Your task to perform on an android device: check the backup settings in the google photos Image 0: 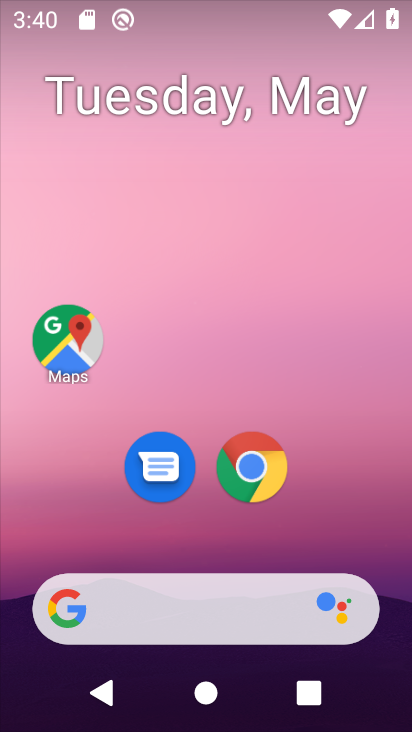
Step 0: drag from (320, 526) to (193, 3)
Your task to perform on an android device: check the backup settings in the google photos Image 1: 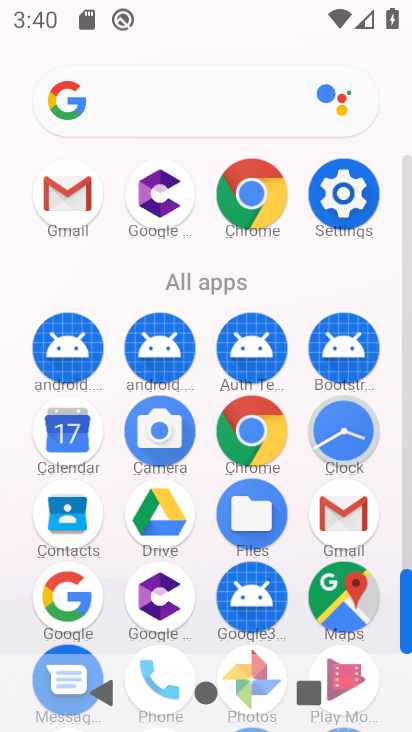
Step 1: click (58, 606)
Your task to perform on an android device: check the backup settings in the google photos Image 2: 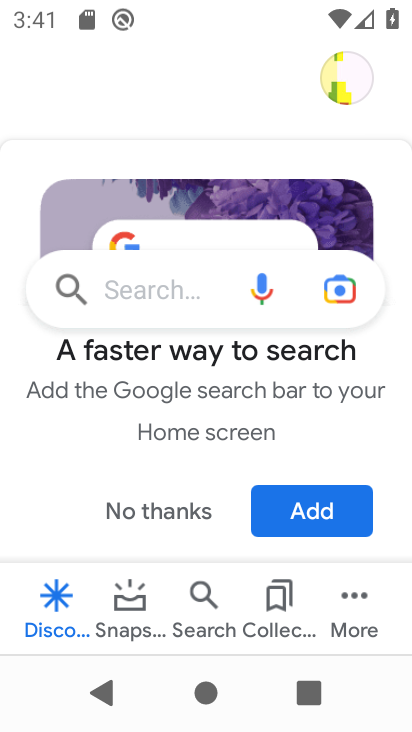
Step 2: press back button
Your task to perform on an android device: check the backup settings in the google photos Image 3: 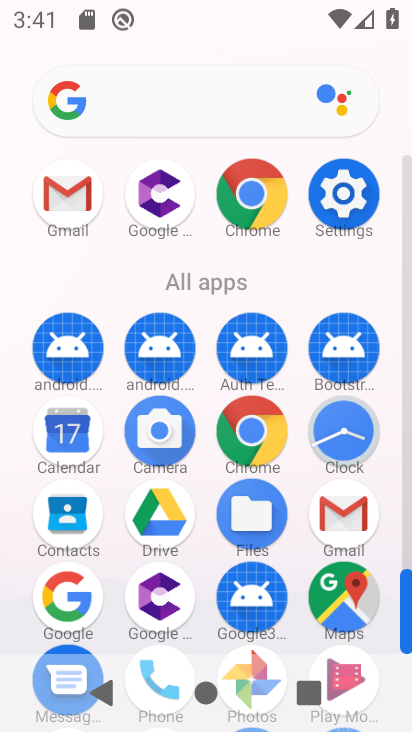
Step 3: drag from (272, 604) to (281, 373)
Your task to perform on an android device: check the backup settings in the google photos Image 4: 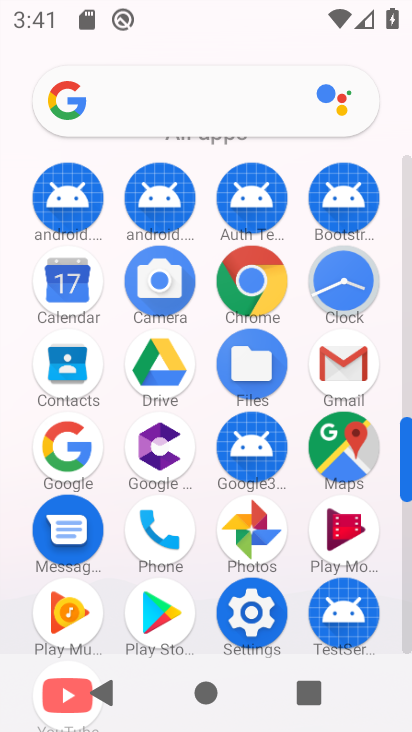
Step 4: click (246, 515)
Your task to perform on an android device: check the backup settings in the google photos Image 5: 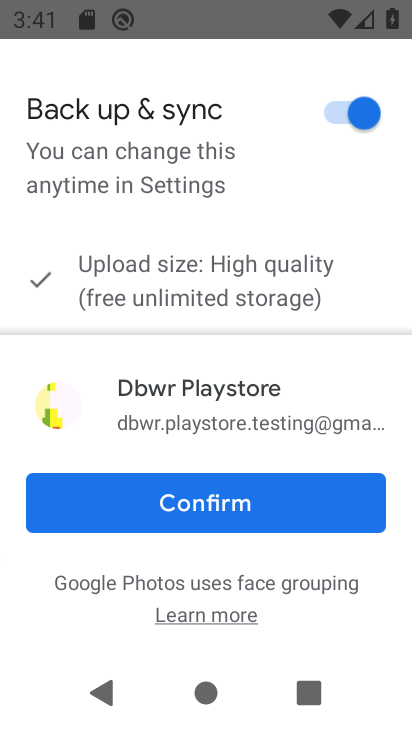
Step 5: click (82, 100)
Your task to perform on an android device: check the backup settings in the google photos Image 6: 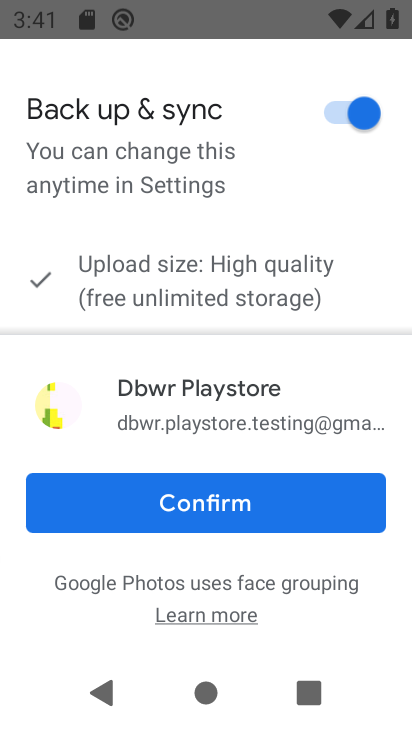
Step 6: click (229, 512)
Your task to perform on an android device: check the backup settings in the google photos Image 7: 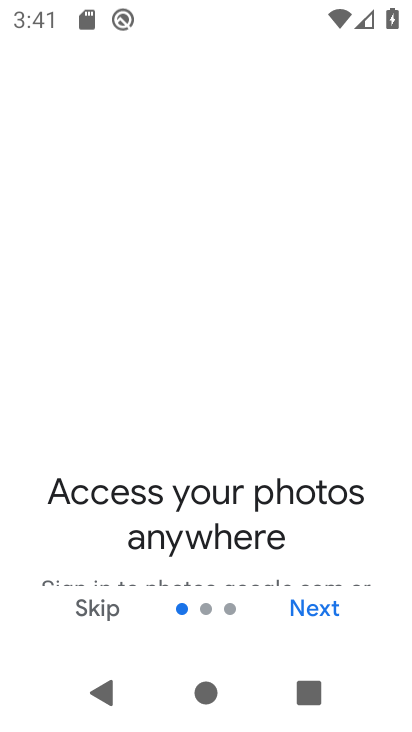
Step 7: click (320, 612)
Your task to perform on an android device: check the backup settings in the google photos Image 8: 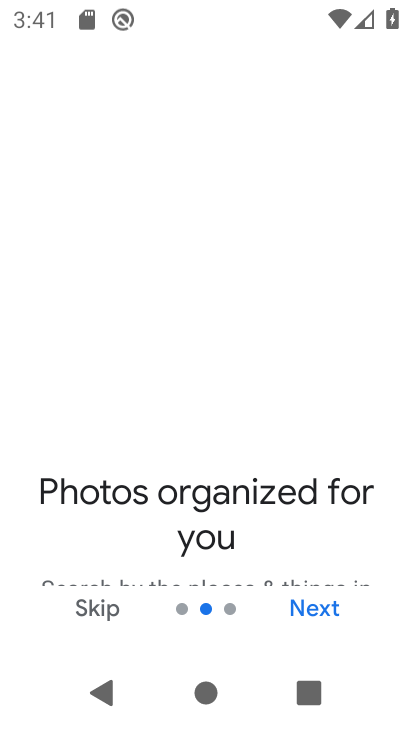
Step 8: click (320, 612)
Your task to perform on an android device: check the backup settings in the google photos Image 9: 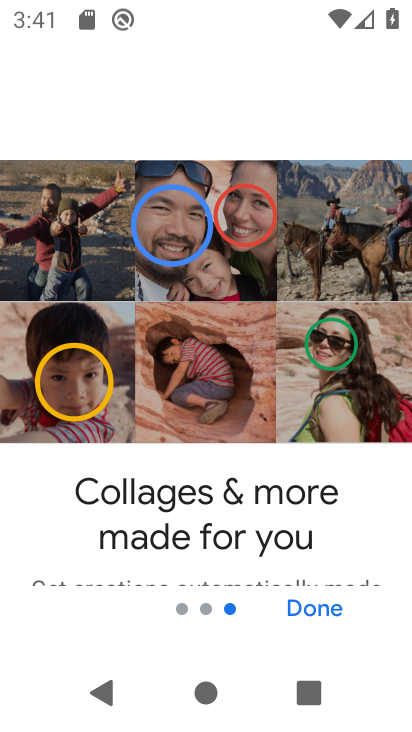
Step 9: click (320, 612)
Your task to perform on an android device: check the backup settings in the google photos Image 10: 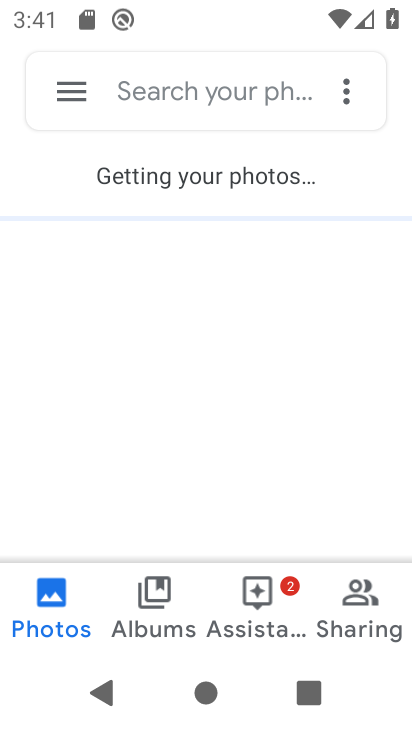
Step 10: click (72, 102)
Your task to perform on an android device: check the backup settings in the google photos Image 11: 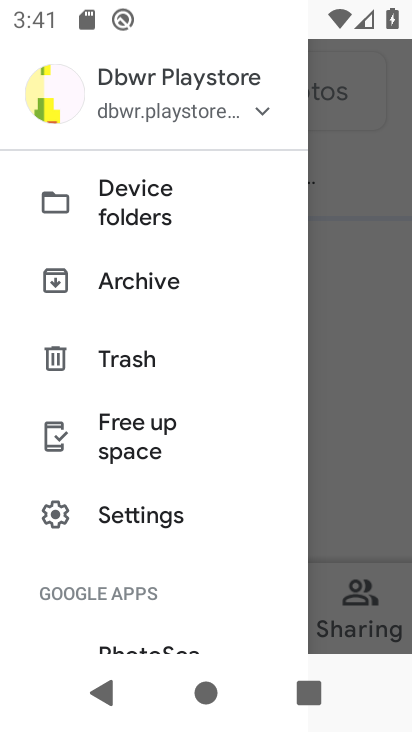
Step 11: drag from (143, 103) to (165, 432)
Your task to perform on an android device: check the backup settings in the google photos Image 12: 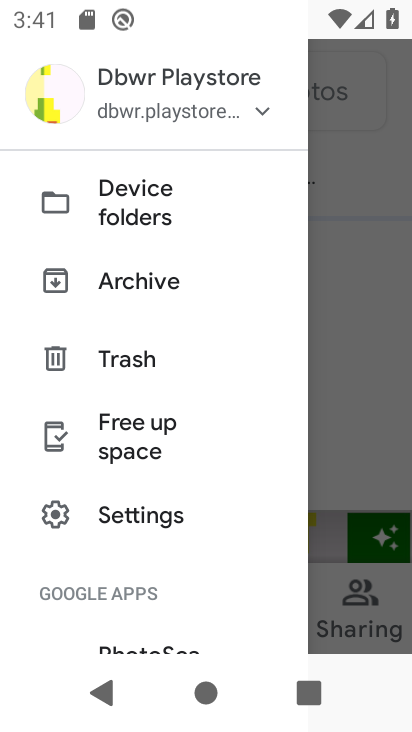
Step 12: click (136, 533)
Your task to perform on an android device: check the backup settings in the google photos Image 13: 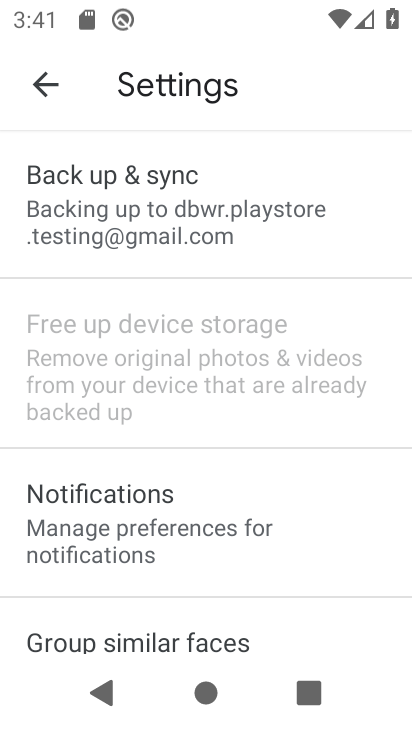
Step 13: click (157, 196)
Your task to perform on an android device: check the backup settings in the google photos Image 14: 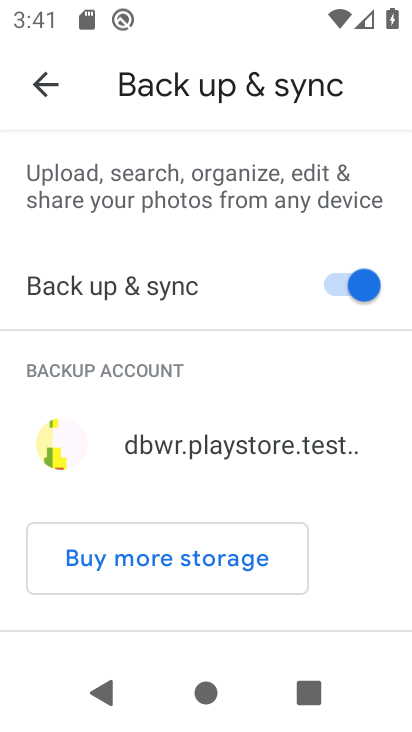
Step 14: task complete